Your task to perform on an android device: toggle wifi Image 0: 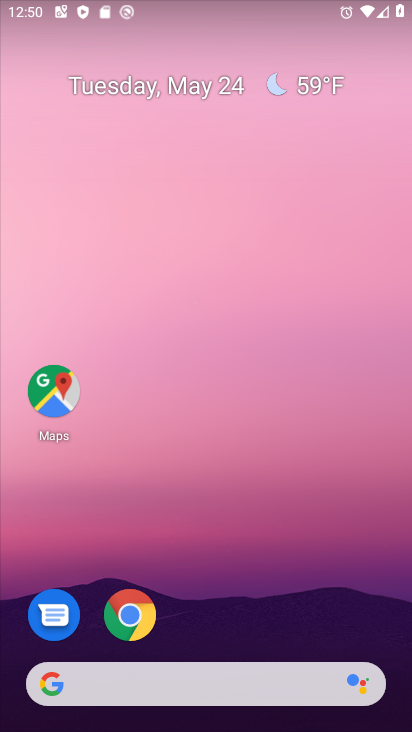
Step 0: drag from (285, 535) to (244, 62)
Your task to perform on an android device: toggle wifi Image 1: 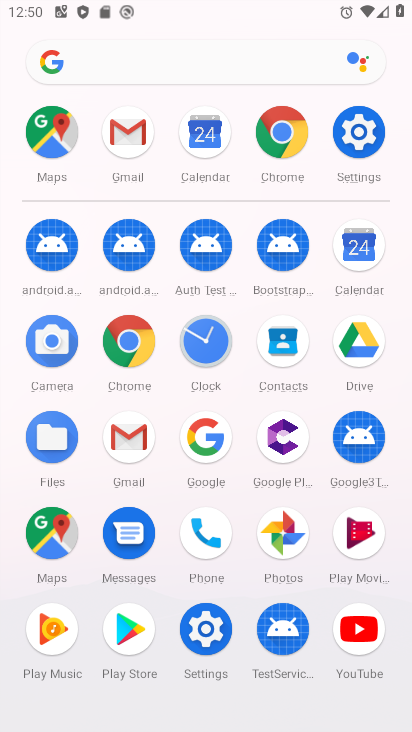
Step 1: drag from (1, 550) to (2, 222)
Your task to perform on an android device: toggle wifi Image 2: 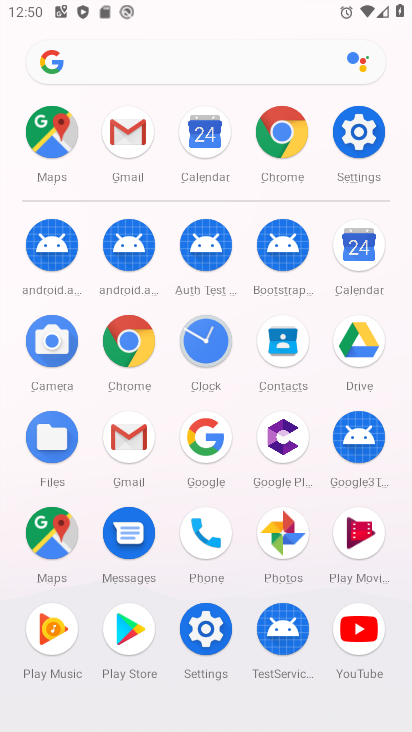
Step 2: click (206, 627)
Your task to perform on an android device: toggle wifi Image 3: 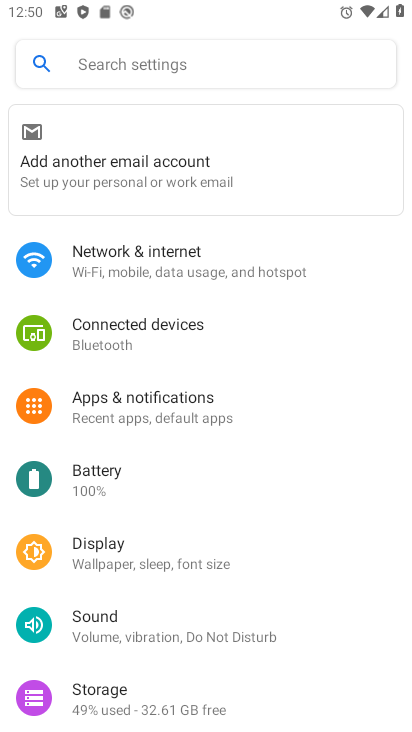
Step 3: click (188, 239)
Your task to perform on an android device: toggle wifi Image 4: 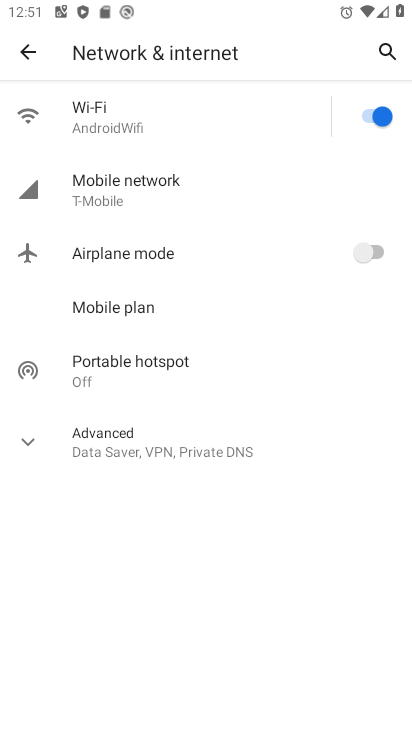
Step 4: click (31, 428)
Your task to perform on an android device: toggle wifi Image 5: 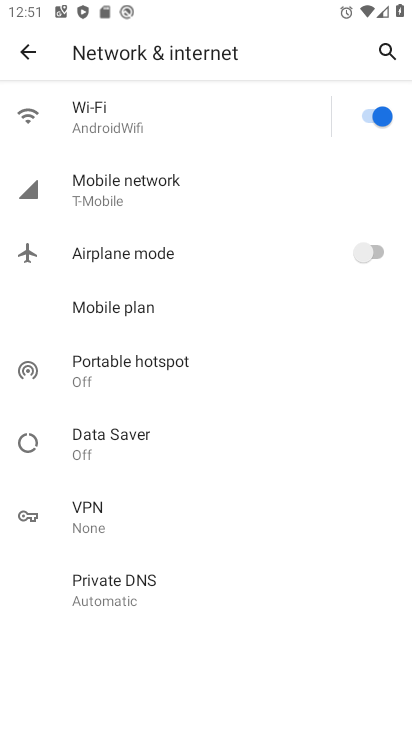
Step 5: click (378, 103)
Your task to perform on an android device: toggle wifi Image 6: 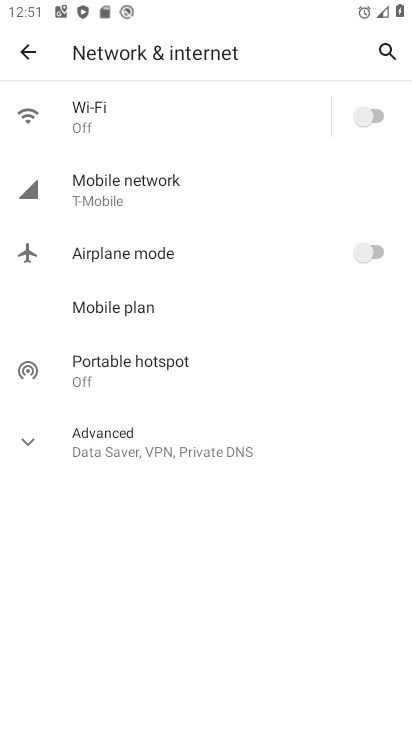
Step 6: task complete